Your task to perform on an android device: read, delete, or share a saved page in the chrome app Image 0: 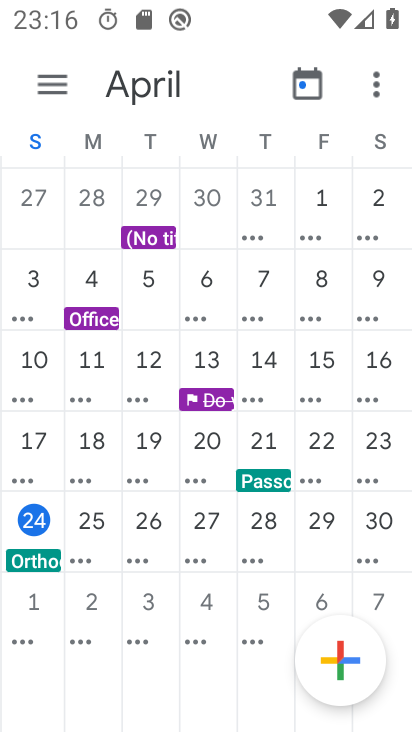
Step 0: press home button
Your task to perform on an android device: read, delete, or share a saved page in the chrome app Image 1: 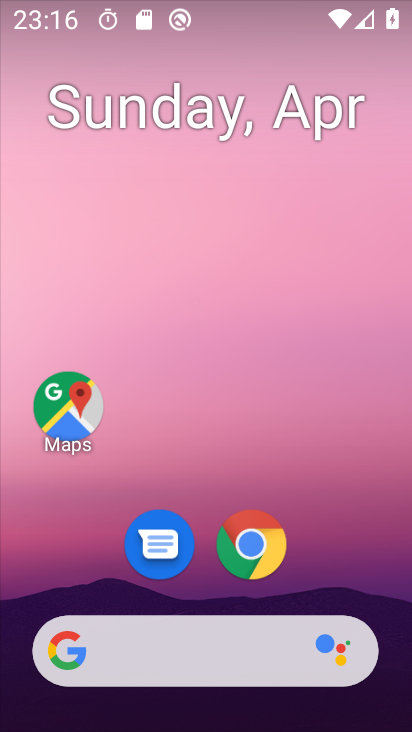
Step 1: drag from (359, 580) to (298, 169)
Your task to perform on an android device: read, delete, or share a saved page in the chrome app Image 2: 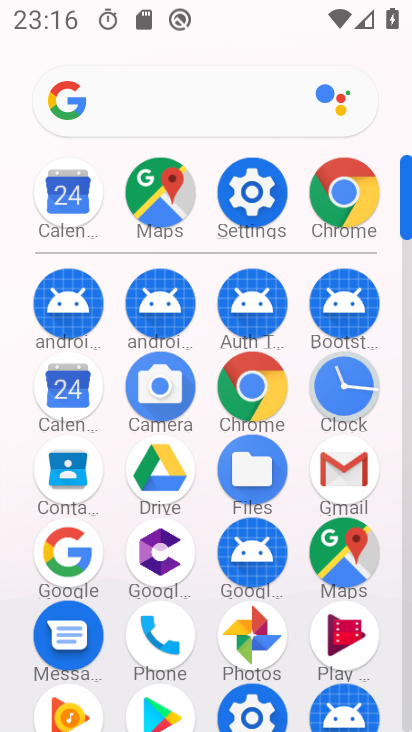
Step 2: click (357, 181)
Your task to perform on an android device: read, delete, or share a saved page in the chrome app Image 3: 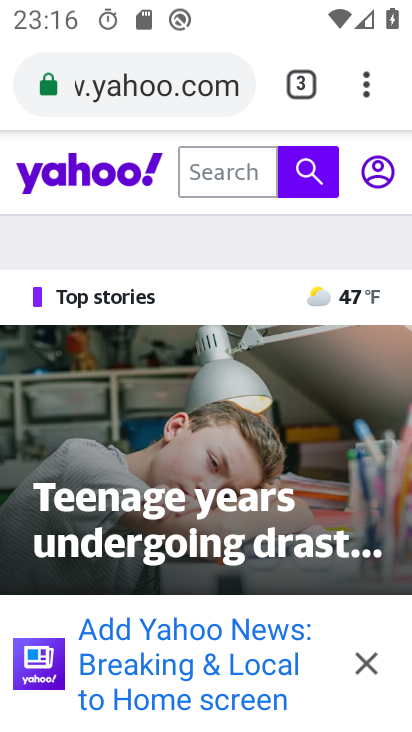
Step 3: click (351, 80)
Your task to perform on an android device: read, delete, or share a saved page in the chrome app Image 4: 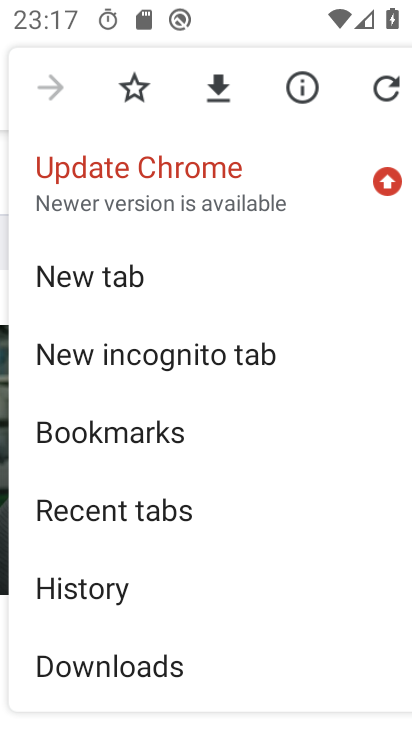
Step 4: click (114, 668)
Your task to perform on an android device: read, delete, or share a saved page in the chrome app Image 5: 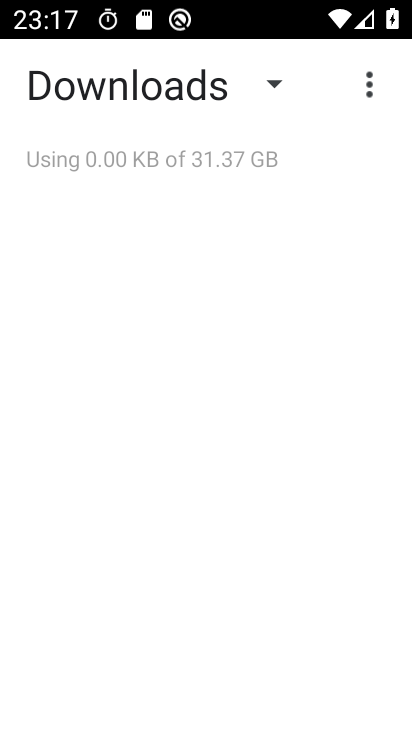
Step 5: click (280, 77)
Your task to perform on an android device: read, delete, or share a saved page in the chrome app Image 6: 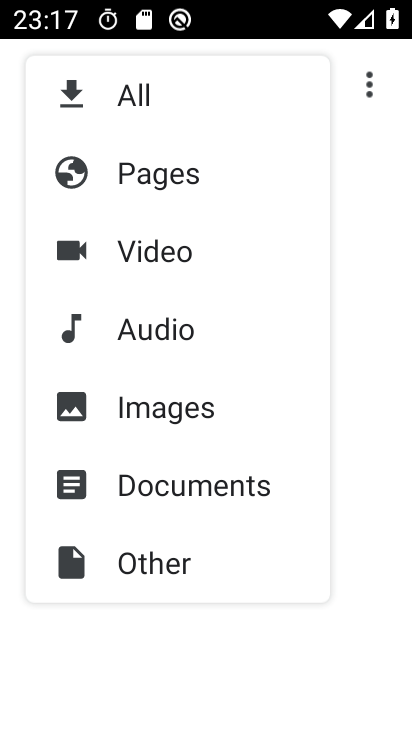
Step 6: click (209, 164)
Your task to perform on an android device: read, delete, or share a saved page in the chrome app Image 7: 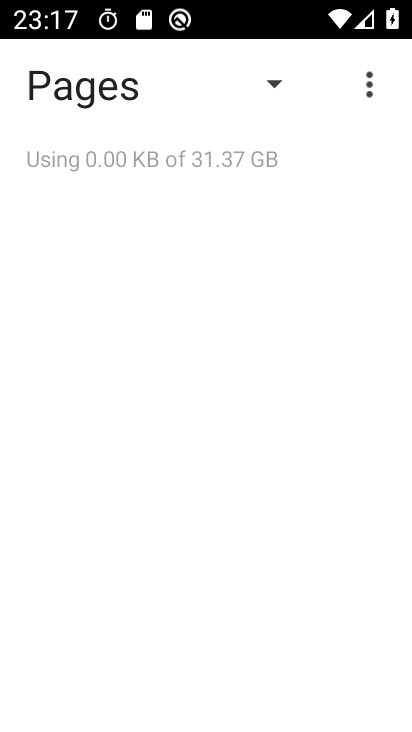
Step 7: task complete